Your task to perform on an android device: open chrome privacy settings Image 0: 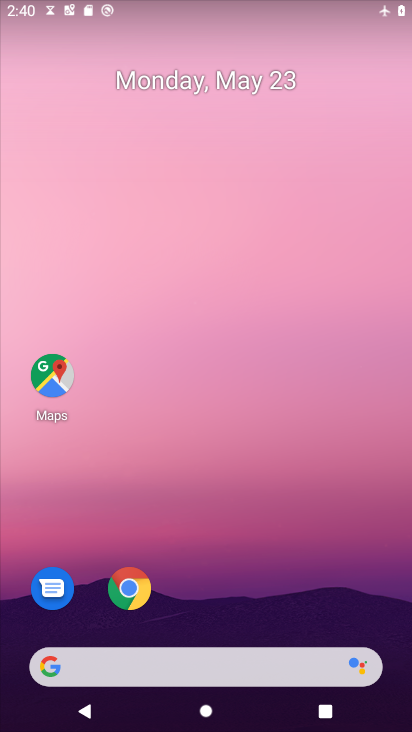
Step 0: drag from (187, 616) to (237, 207)
Your task to perform on an android device: open chrome privacy settings Image 1: 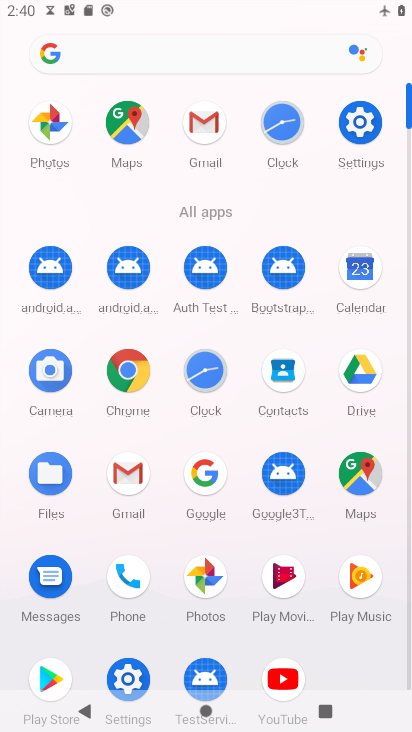
Step 1: click (125, 371)
Your task to perform on an android device: open chrome privacy settings Image 2: 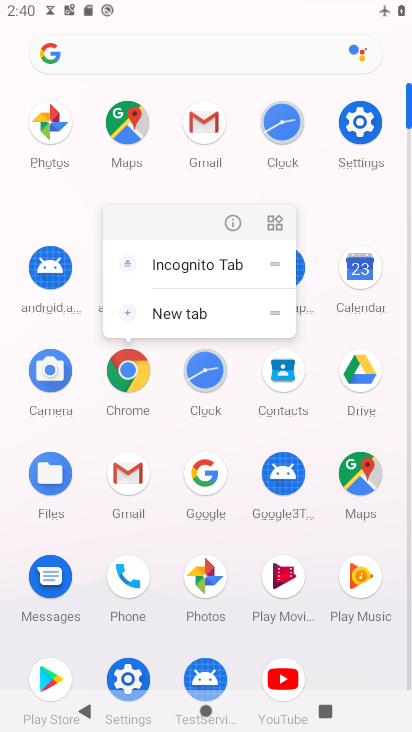
Step 2: click (235, 218)
Your task to perform on an android device: open chrome privacy settings Image 3: 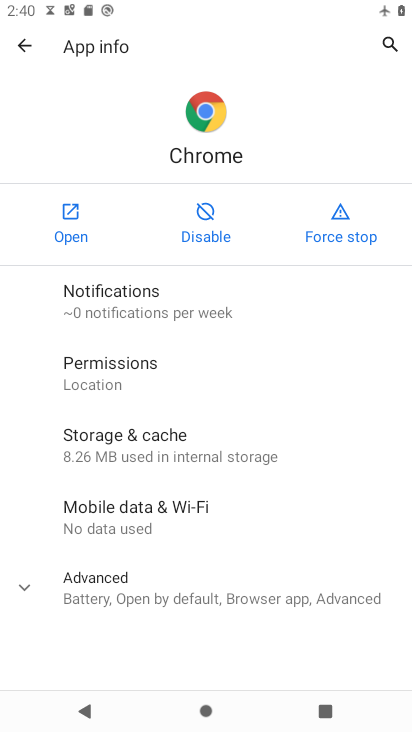
Step 3: click (52, 214)
Your task to perform on an android device: open chrome privacy settings Image 4: 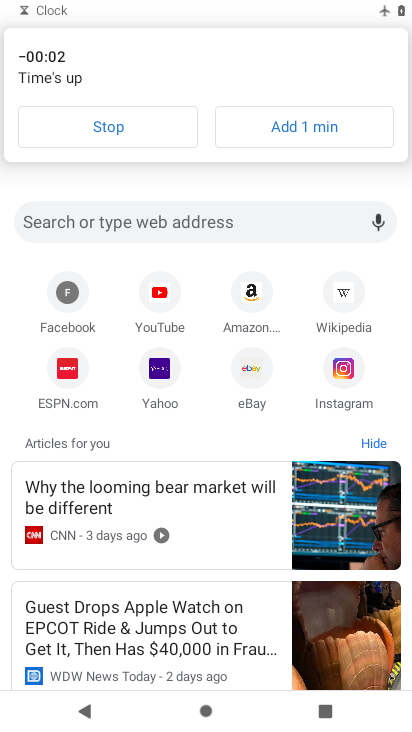
Step 4: click (155, 130)
Your task to perform on an android device: open chrome privacy settings Image 5: 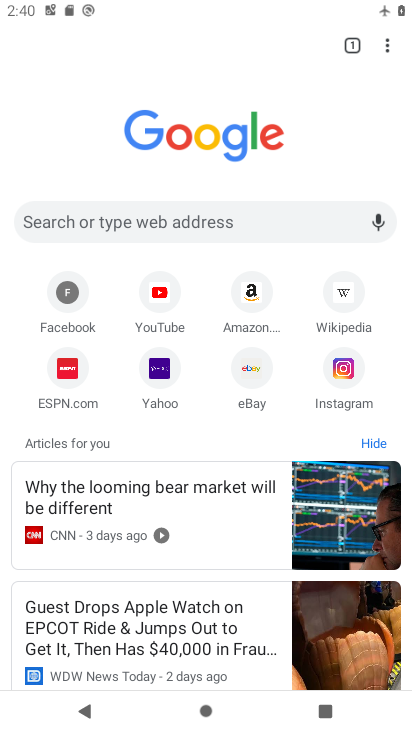
Step 5: click (397, 44)
Your task to perform on an android device: open chrome privacy settings Image 6: 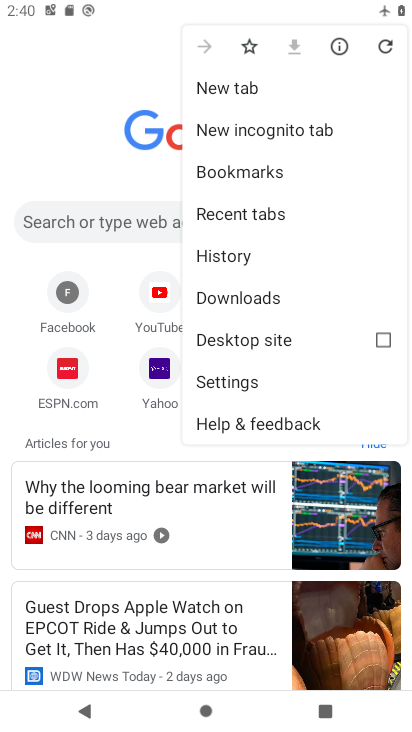
Step 6: click (250, 379)
Your task to perform on an android device: open chrome privacy settings Image 7: 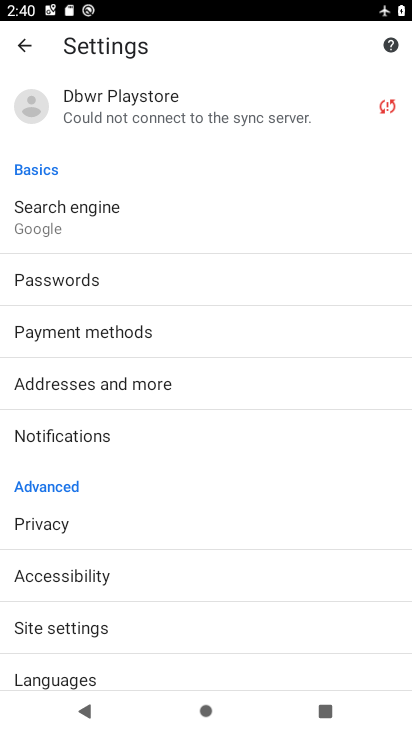
Step 7: click (77, 525)
Your task to perform on an android device: open chrome privacy settings Image 8: 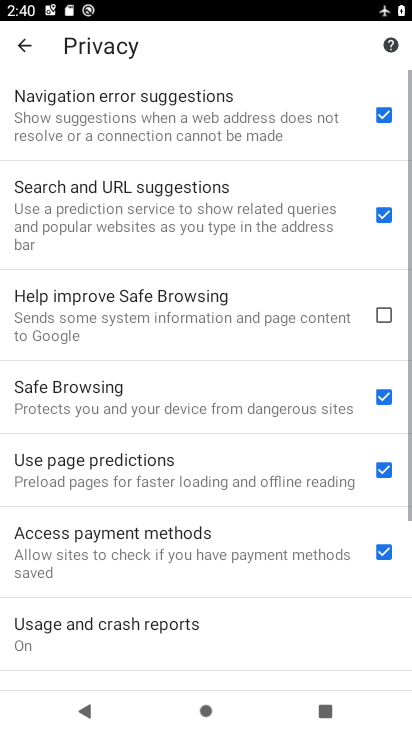
Step 8: task complete